Your task to perform on an android device: Go to settings Image 0: 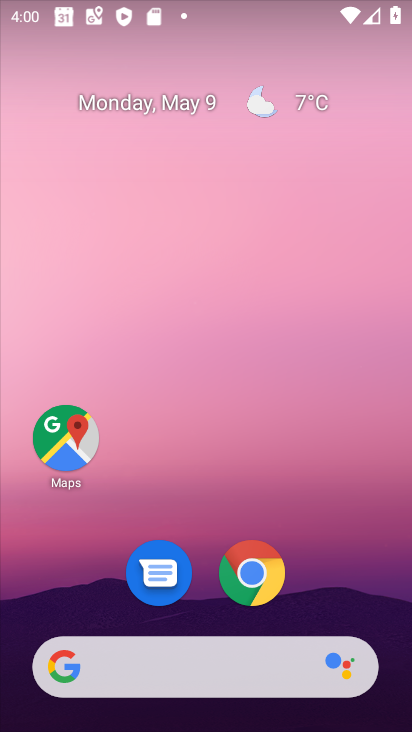
Step 0: drag from (333, 618) to (329, 83)
Your task to perform on an android device: Go to settings Image 1: 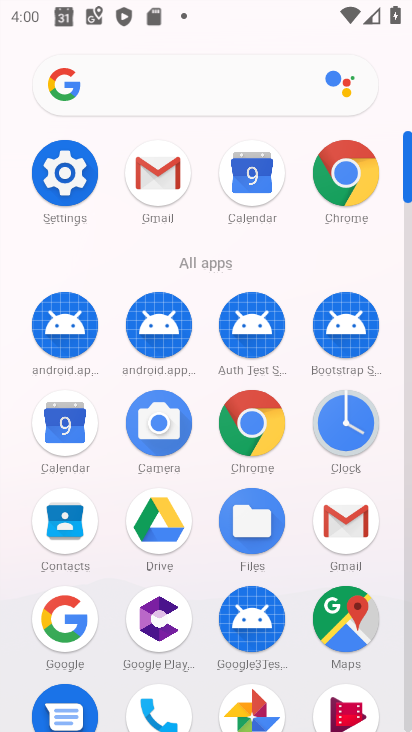
Step 1: click (61, 178)
Your task to perform on an android device: Go to settings Image 2: 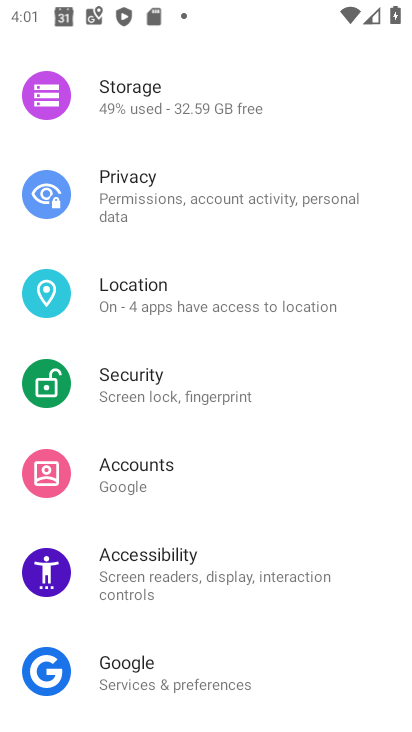
Step 2: task complete